Your task to perform on an android device: Open Reddit.com Image 0: 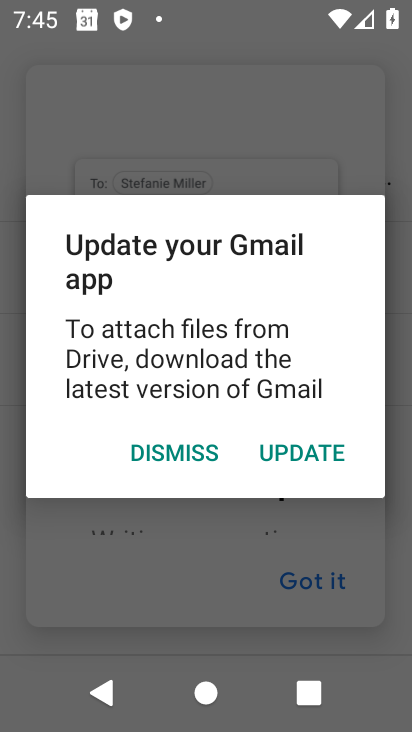
Step 0: press home button
Your task to perform on an android device: Open Reddit.com Image 1: 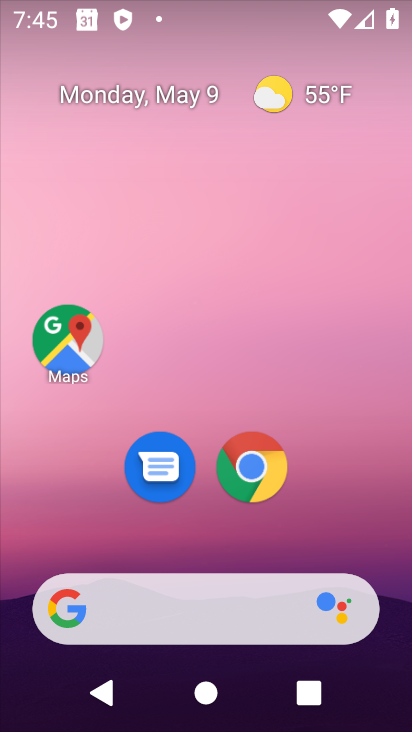
Step 1: click (251, 478)
Your task to perform on an android device: Open Reddit.com Image 2: 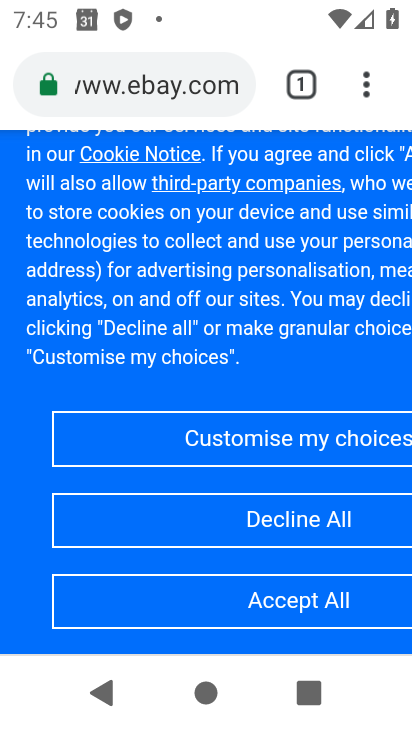
Step 2: click (162, 83)
Your task to perform on an android device: Open Reddit.com Image 3: 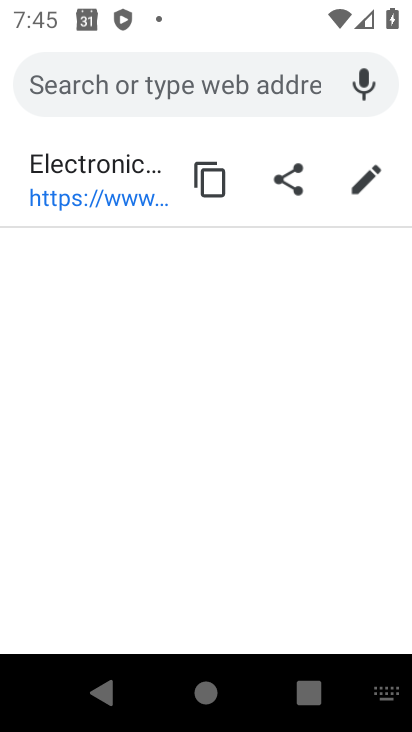
Step 3: type "reddit.com"
Your task to perform on an android device: Open Reddit.com Image 4: 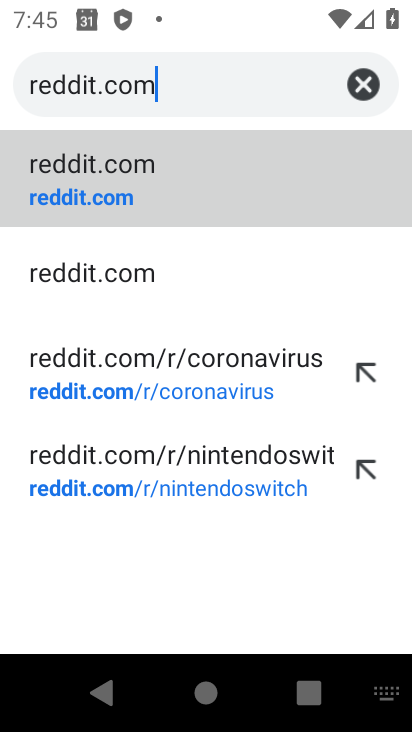
Step 4: click (95, 177)
Your task to perform on an android device: Open Reddit.com Image 5: 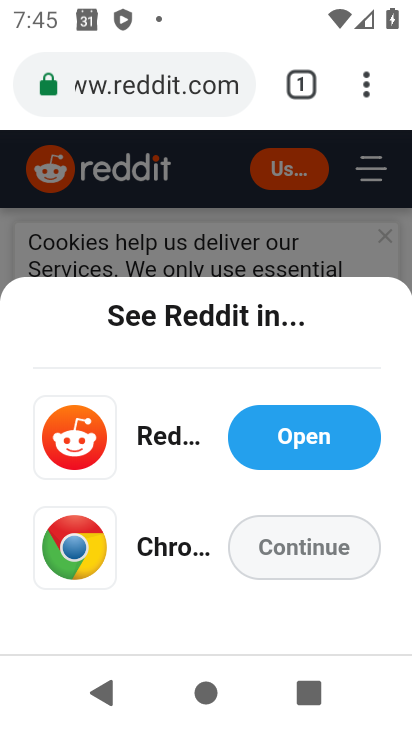
Step 5: task complete